Your task to perform on an android device: toggle translation in the chrome app Image 0: 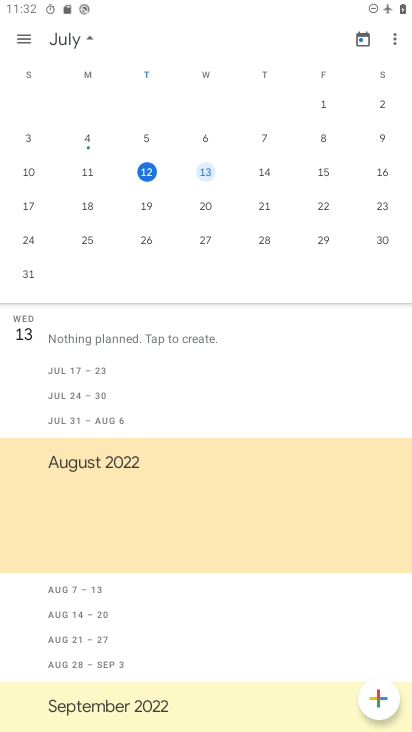
Step 0: press home button
Your task to perform on an android device: toggle translation in the chrome app Image 1: 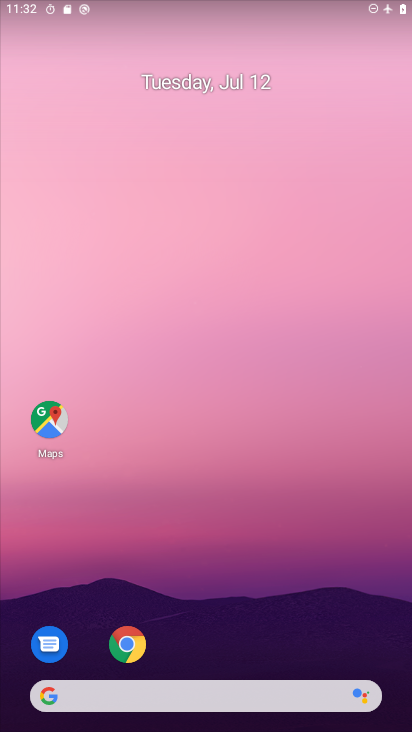
Step 1: click (125, 643)
Your task to perform on an android device: toggle translation in the chrome app Image 2: 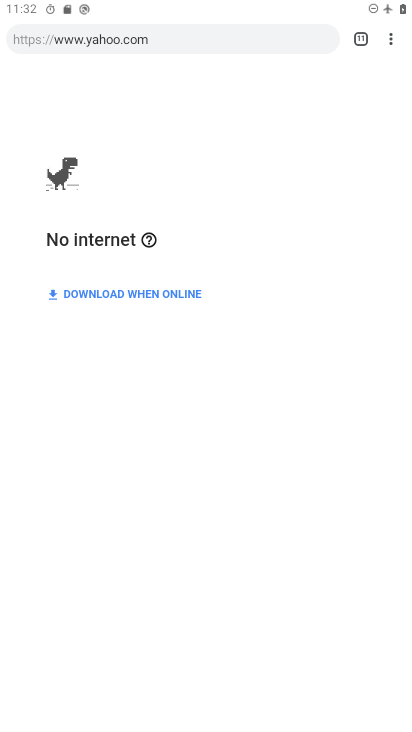
Step 2: click (383, 42)
Your task to perform on an android device: toggle translation in the chrome app Image 3: 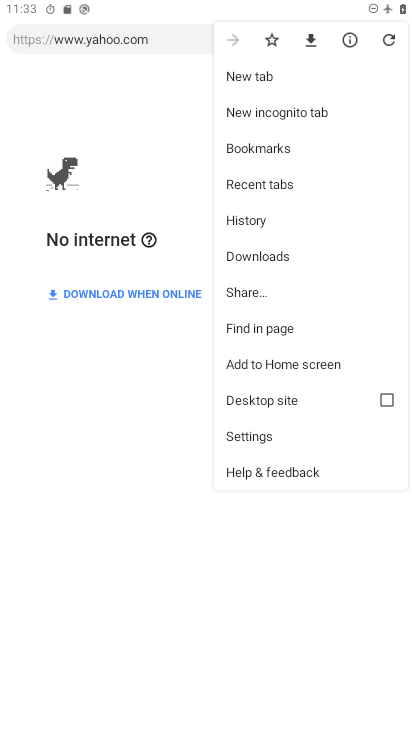
Step 3: click (270, 434)
Your task to perform on an android device: toggle translation in the chrome app Image 4: 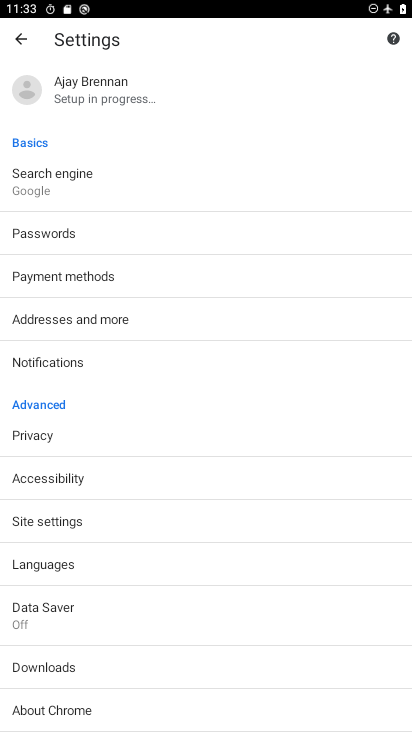
Step 4: click (102, 570)
Your task to perform on an android device: toggle translation in the chrome app Image 5: 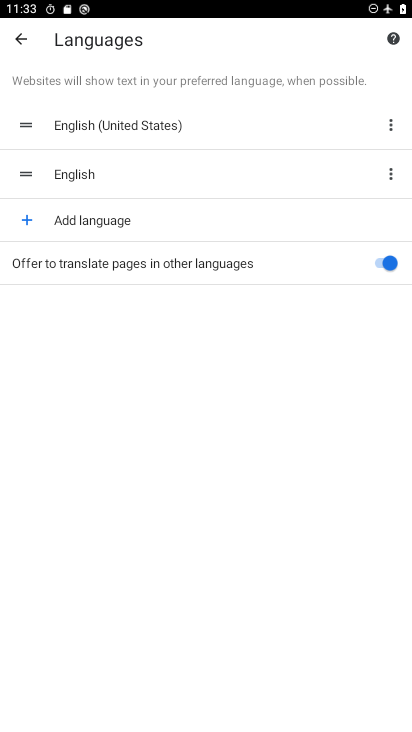
Step 5: click (376, 260)
Your task to perform on an android device: toggle translation in the chrome app Image 6: 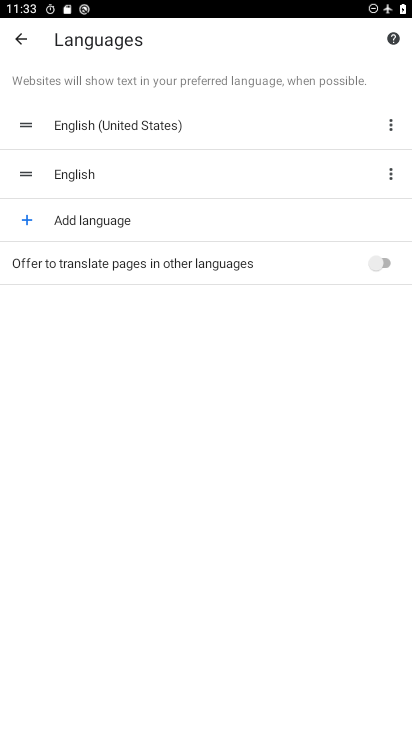
Step 6: task complete